Your task to perform on an android device: change the upload size in google photos Image 0: 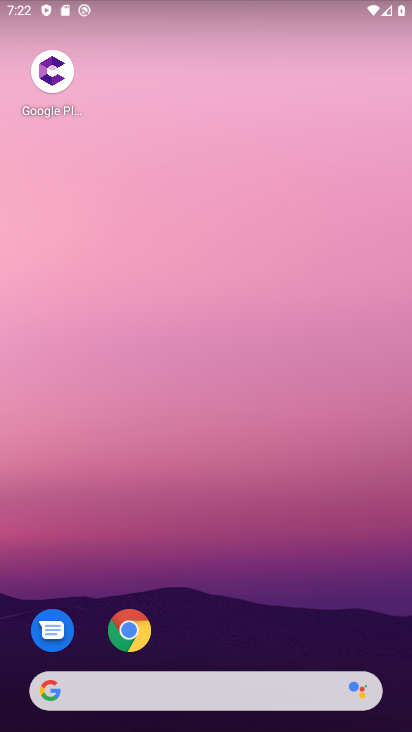
Step 0: drag from (228, 569) to (265, 186)
Your task to perform on an android device: change the upload size in google photos Image 1: 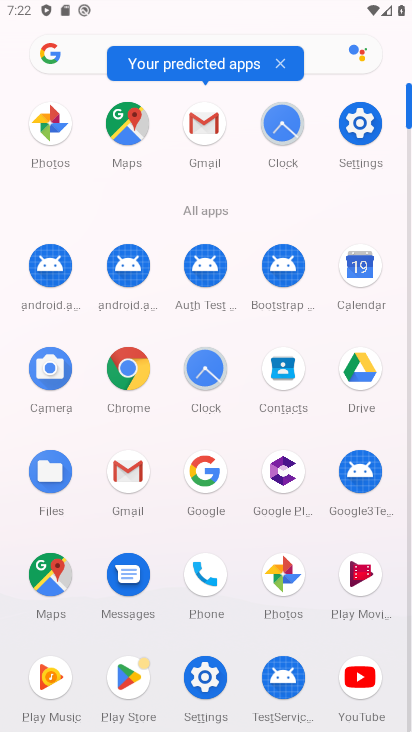
Step 1: click (290, 580)
Your task to perform on an android device: change the upload size in google photos Image 2: 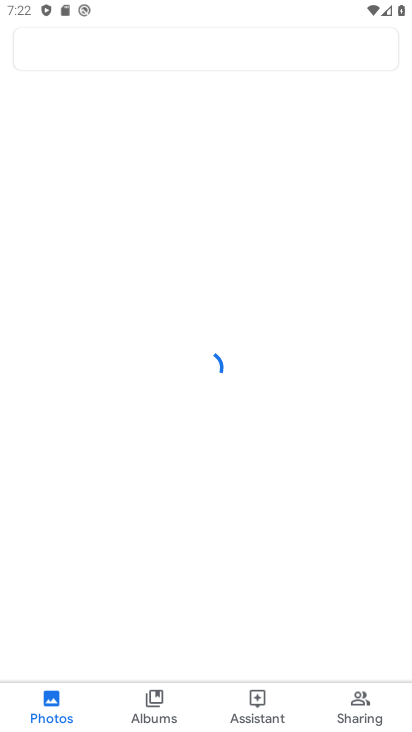
Step 2: task complete